Your task to perform on an android device: Clear the cart on walmart.com. Add "razer kraken" to the cart on walmart.com, then select checkout. Image 0: 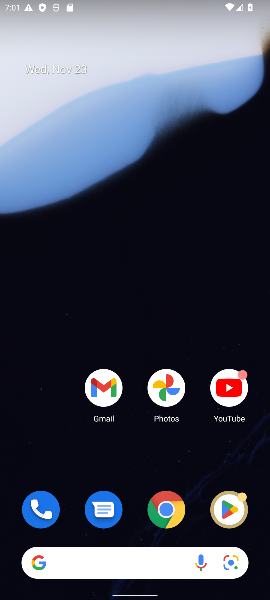
Step 0: click (181, 522)
Your task to perform on an android device: Clear the cart on walmart.com. Add "razer kraken" to the cart on walmart.com, then select checkout. Image 1: 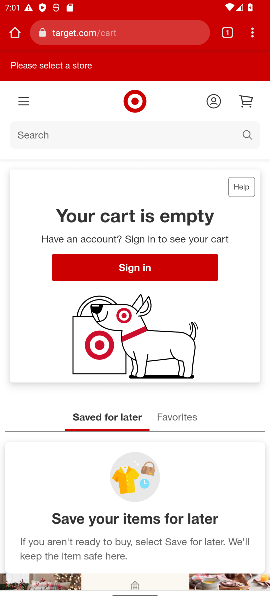
Step 1: click (120, 23)
Your task to perform on an android device: Clear the cart on walmart.com. Add "razer kraken" to the cart on walmart.com, then select checkout. Image 2: 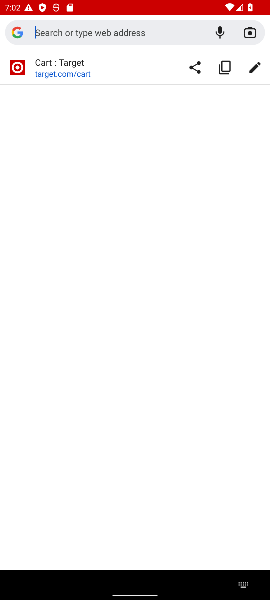
Step 2: type "walmart.com"
Your task to perform on an android device: Clear the cart on walmart.com. Add "razer kraken" to the cart on walmart.com, then select checkout. Image 3: 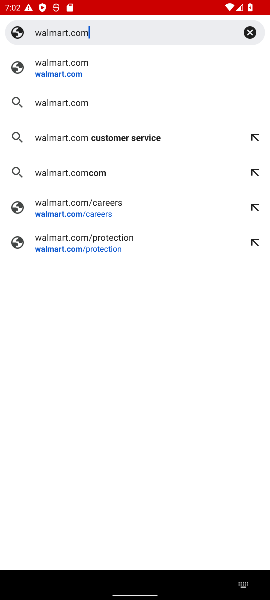
Step 3: click (91, 67)
Your task to perform on an android device: Clear the cart on walmart.com. Add "razer kraken" to the cart on walmart.com, then select checkout. Image 4: 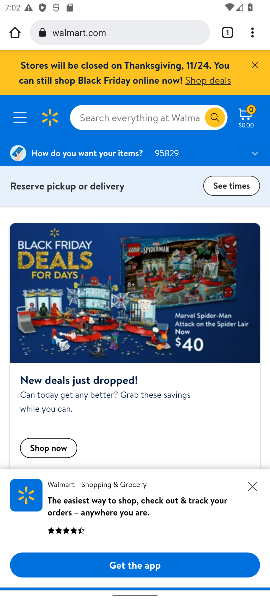
Step 4: click (245, 115)
Your task to perform on an android device: Clear the cart on walmart.com. Add "razer kraken" to the cart on walmart.com, then select checkout. Image 5: 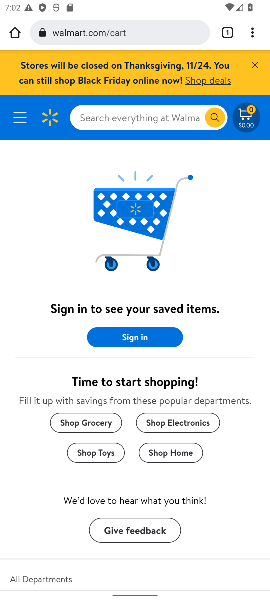
Step 5: click (106, 118)
Your task to perform on an android device: Clear the cart on walmart.com. Add "razer kraken" to the cart on walmart.com, then select checkout. Image 6: 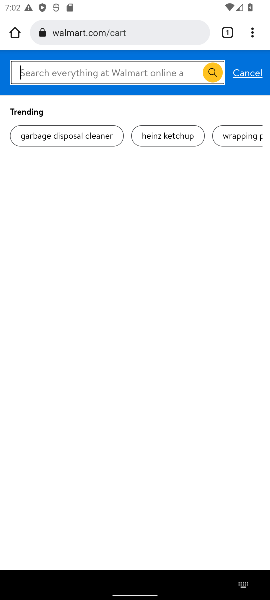
Step 6: type "razer kraken"
Your task to perform on an android device: Clear the cart on walmart.com. Add "razer kraken" to the cart on walmart.com, then select checkout. Image 7: 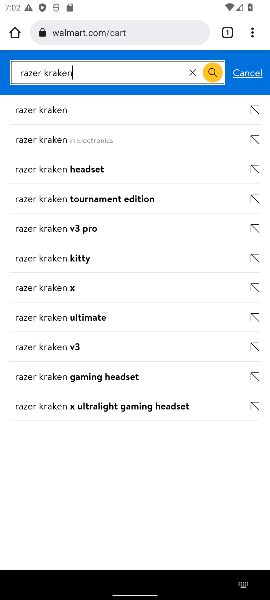
Step 7: click (50, 105)
Your task to perform on an android device: Clear the cart on walmart.com. Add "razer kraken" to the cart on walmart.com, then select checkout. Image 8: 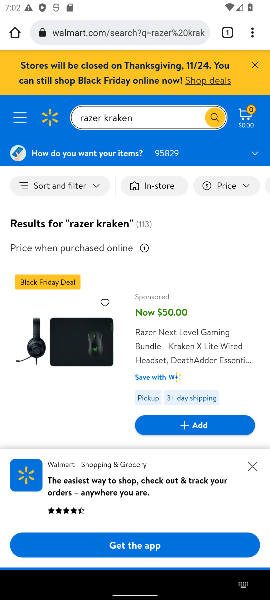
Step 8: drag from (91, 383) to (80, 136)
Your task to perform on an android device: Clear the cart on walmart.com. Add "razer kraken" to the cart on walmart.com, then select checkout. Image 9: 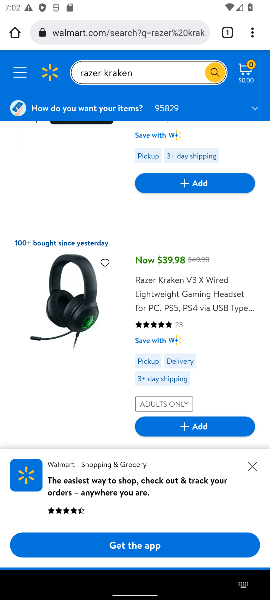
Step 9: click (204, 428)
Your task to perform on an android device: Clear the cart on walmart.com. Add "razer kraken" to the cart on walmart.com, then select checkout. Image 10: 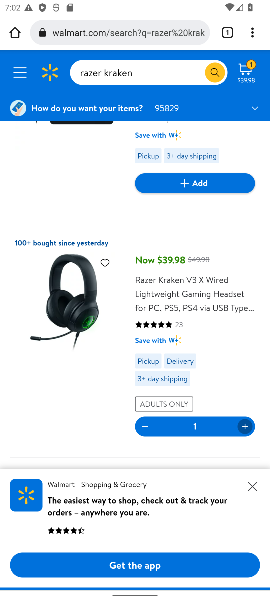
Step 10: click (249, 63)
Your task to perform on an android device: Clear the cart on walmart.com. Add "razer kraken" to the cart on walmart.com, then select checkout. Image 11: 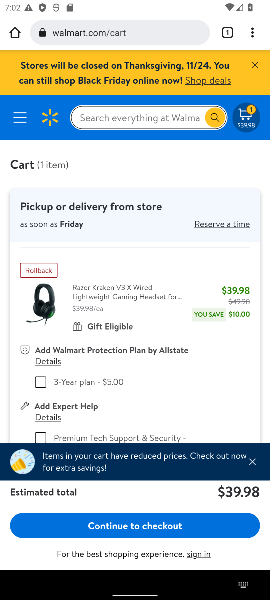
Step 11: click (181, 531)
Your task to perform on an android device: Clear the cart on walmart.com. Add "razer kraken" to the cart on walmart.com, then select checkout. Image 12: 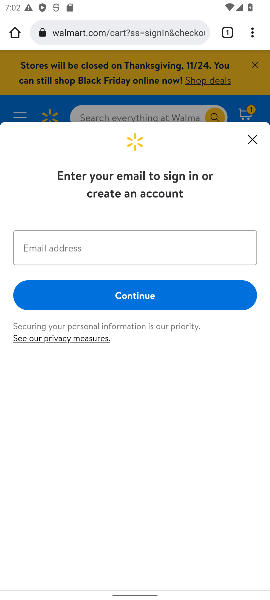
Step 12: task complete